Your task to perform on an android device: read, delete, or share a saved page in the chrome app Image 0: 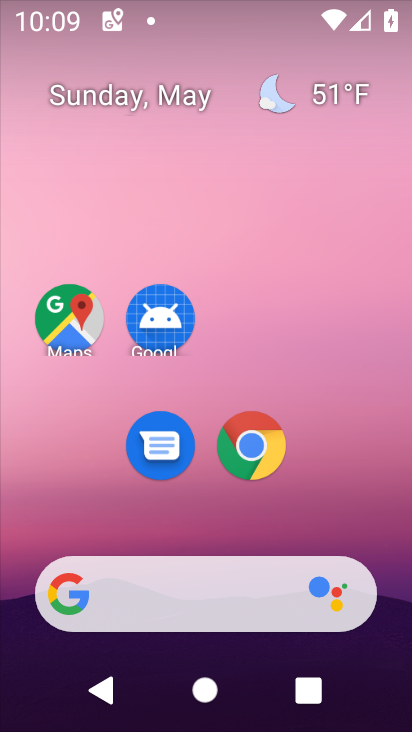
Step 0: click (248, 444)
Your task to perform on an android device: read, delete, or share a saved page in the chrome app Image 1: 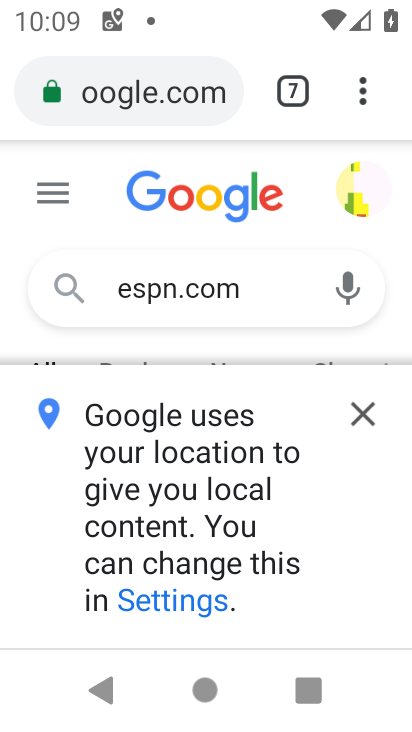
Step 1: click (361, 95)
Your task to perform on an android device: read, delete, or share a saved page in the chrome app Image 2: 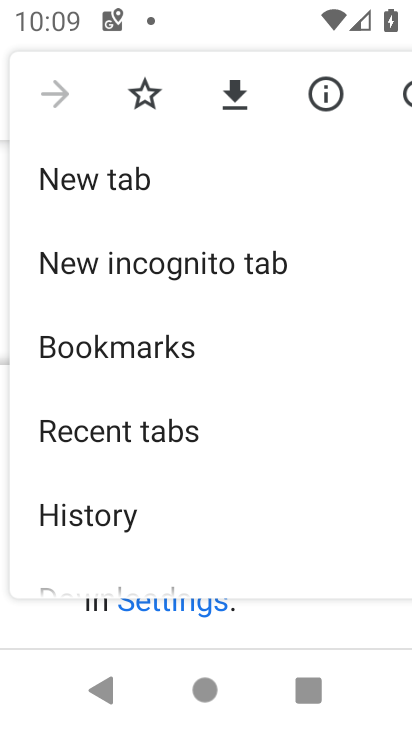
Step 2: drag from (161, 466) to (85, 157)
Your task to perform on an android device: read, delete, or share a saved page in the chrome app Image 3: 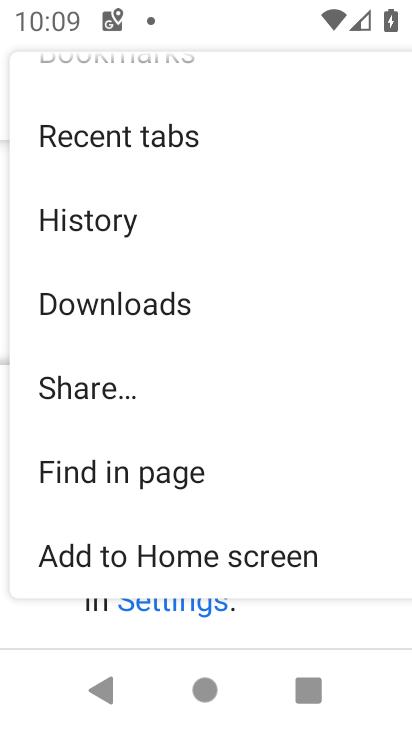
Step 3: click (92, 308)
Your task to perform on an android device: read, delete, or share a saved page in the chrome app Image 4: 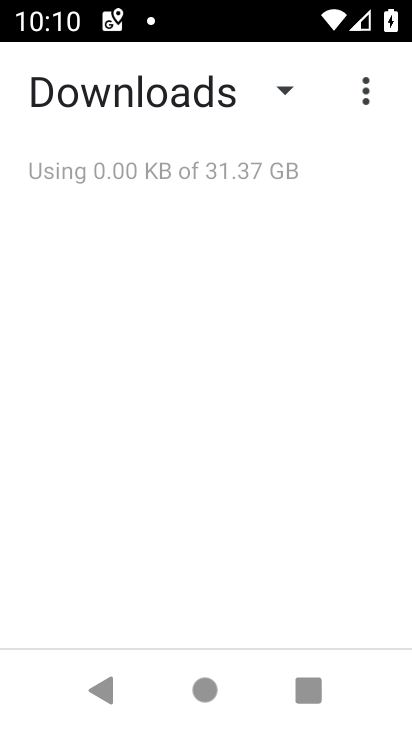
Step 4: task complete